Your task to perform on an android device: View the shopping cart on newegg.com. Search for "macbook" on newegg.com, select the first entry, and add it to the cart. Image 0: 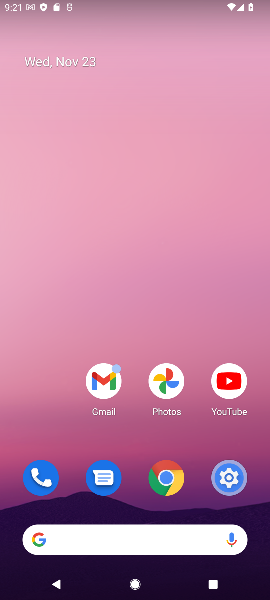
Step 0: click (142, 532)
Your task to perform on an android device: View the shopping cart on newegg.com. Search for "macbook" on newegg.com, select the first entry, and add it to the cart. Image 1: 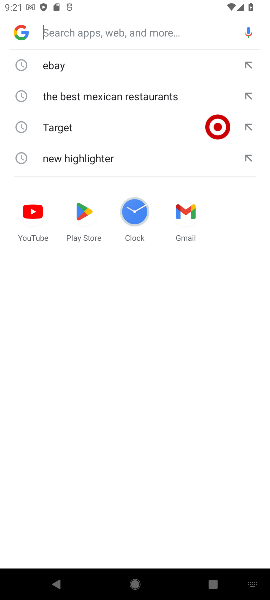
Step 1: type "newegg.com"
Your task to perform on an android device: View the shopping cart on newegg.com. Search for "macbook" on newegg.com, select the first entry, and add it to the cart. Image 2: 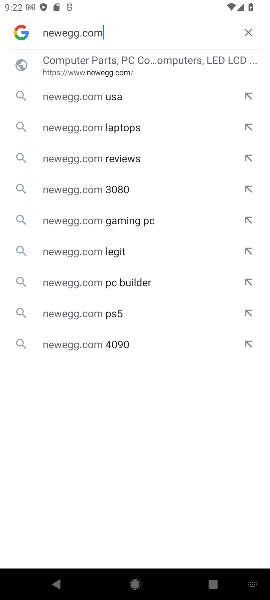
Step 2: click (114, 68)
Your task to perform on an android device: View the shopping cart on newegg.com. Search for "macbook" on newegg.com, select the first entry, and add it to the cart. Image 3: 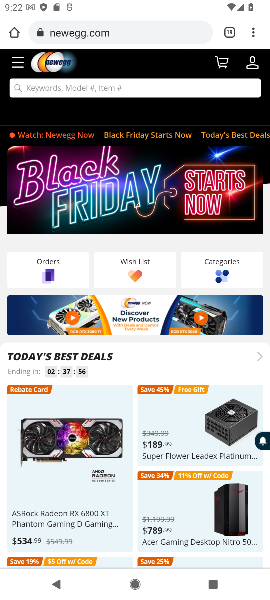
Step 3: click (118, 95)
Your task to perform on an android device: View the shopping cart on newegg.com. Search for "macbook" on newegg.com, select the first entry, and add it to the cart. Image 4: 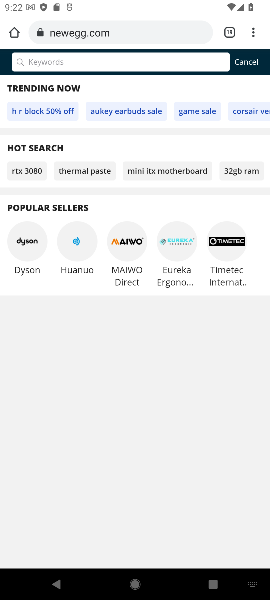
Step 4: type "macbook"
Your task to perform on an android device: View the shopping cart on newegg.com. Search for "macbook" on newegg.com, select the first entry, and add it to the cart. Image 5: 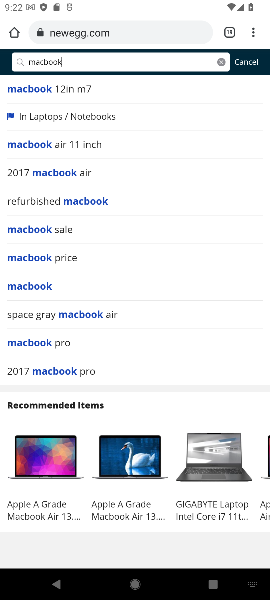
Step 5: click (69, 92)
Your task to perform on an android device: View the shopping cart on newegg.com. Search for "macbook" on newegg.com, select the first entry, and add it to the cart. Image 6: 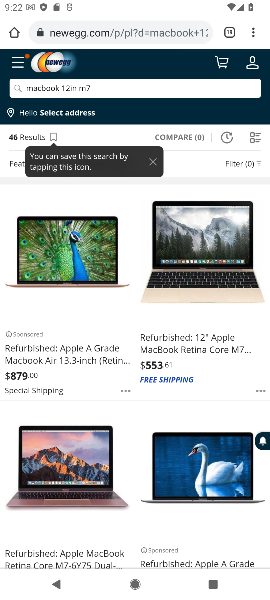
Step 6: click (69, 363)
Your task to perform on an android device: View the shopping cart on newegg.com. Search for "macbook" on newegg.com, select the first entry, and add it to the cart. Image 7: 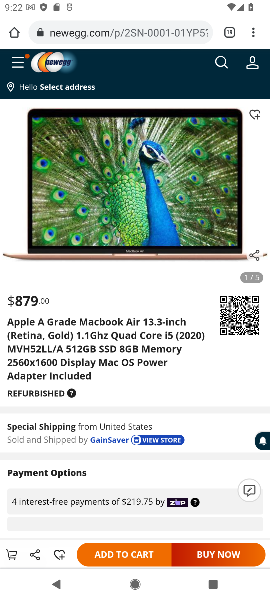
Step 7: click (134, 552)
Your task to perform on an android device: View the shopping cart on newegg.com. Search for "macbook" on newegg.com, select the first entry, and add it to the cart. Image 8: 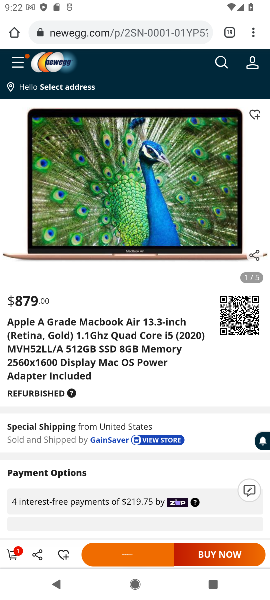
Step 8: task complete